Your task to perform on an android device: Go to wifi settings Image 0: 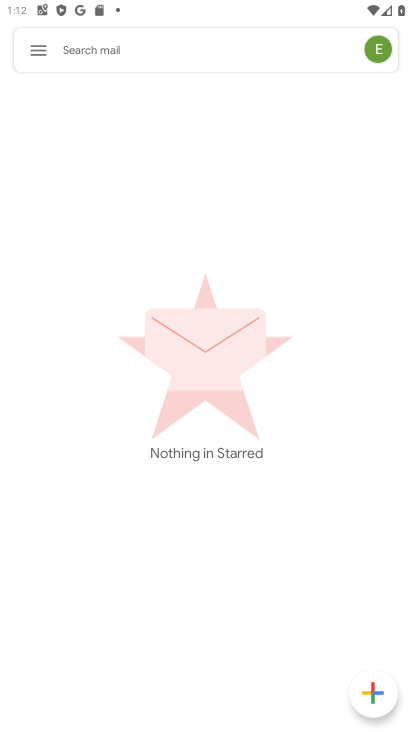
Step 0: press home button
Your task to perform on an android device: Go to wifi settings Image 1: 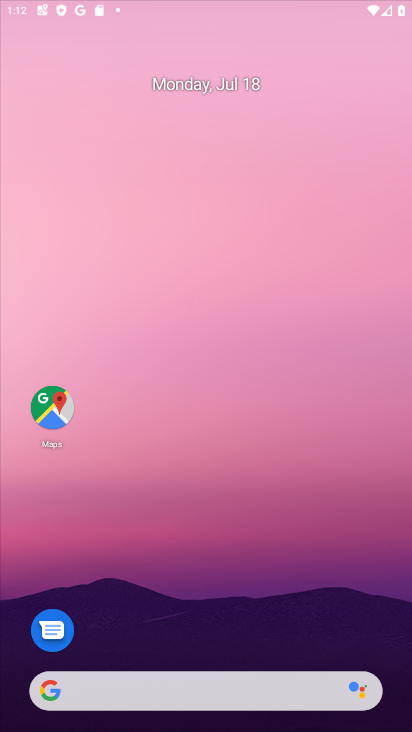
Step 1: drag from (276, 682) to (245, 12)
Your task to perform on an android device: Go to wifi settings Image 2: 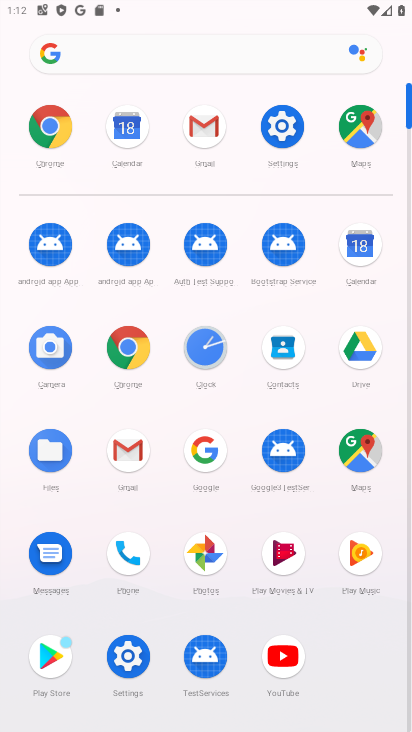
Step 2: click (281, 137)
Your task to perform on an android device: Go to wifi settings Image 3: 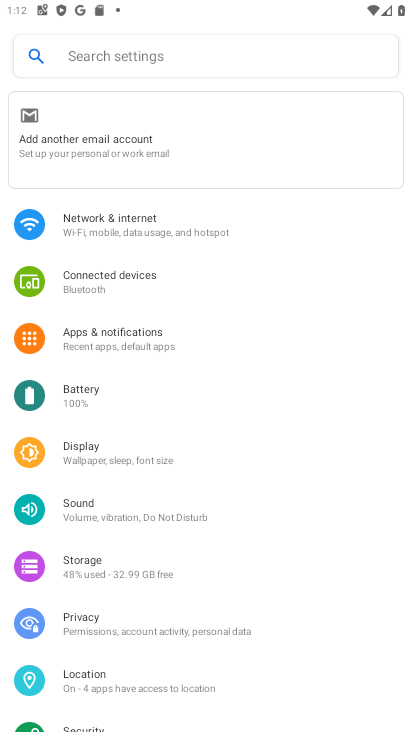
Step 3: click (146, 230)
Your task to perform on an android device: Go to wifi settings Image 4: 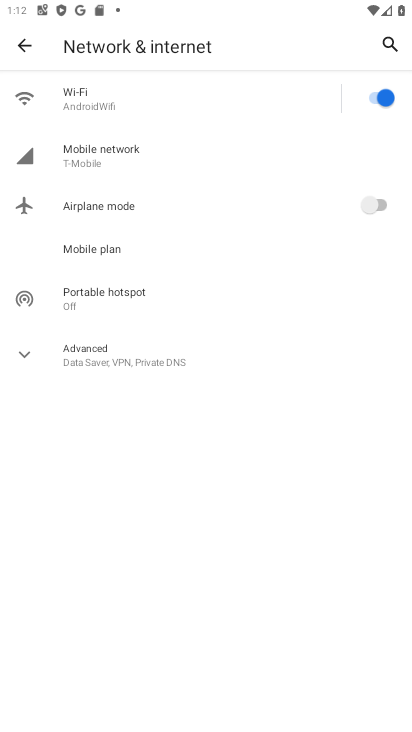
Step 4: task complete